Your task to perform on an android device: Go to Maps Image 0: 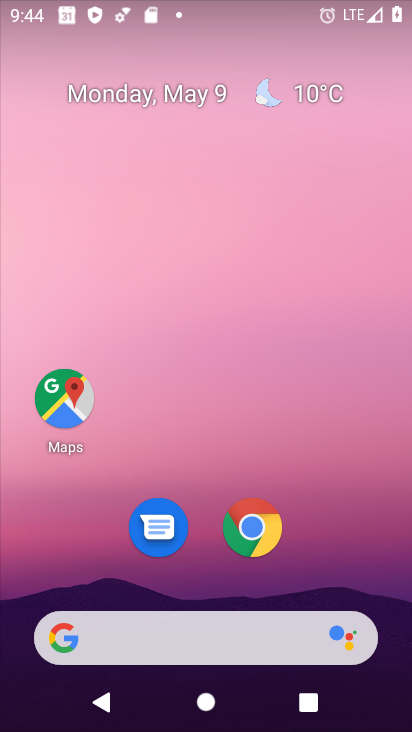
Step 0: click (69, 400)
Your task to perform on an android device: Go to Maps Image 1: 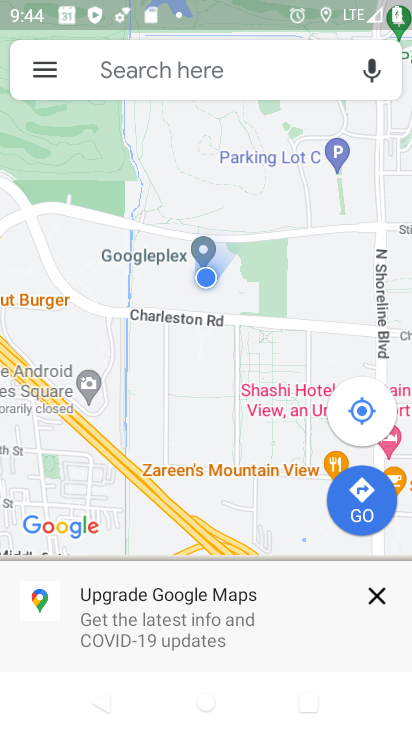
Step 1: task complete